Your task to perform on an android device: open app "PlayWell" Image 0: 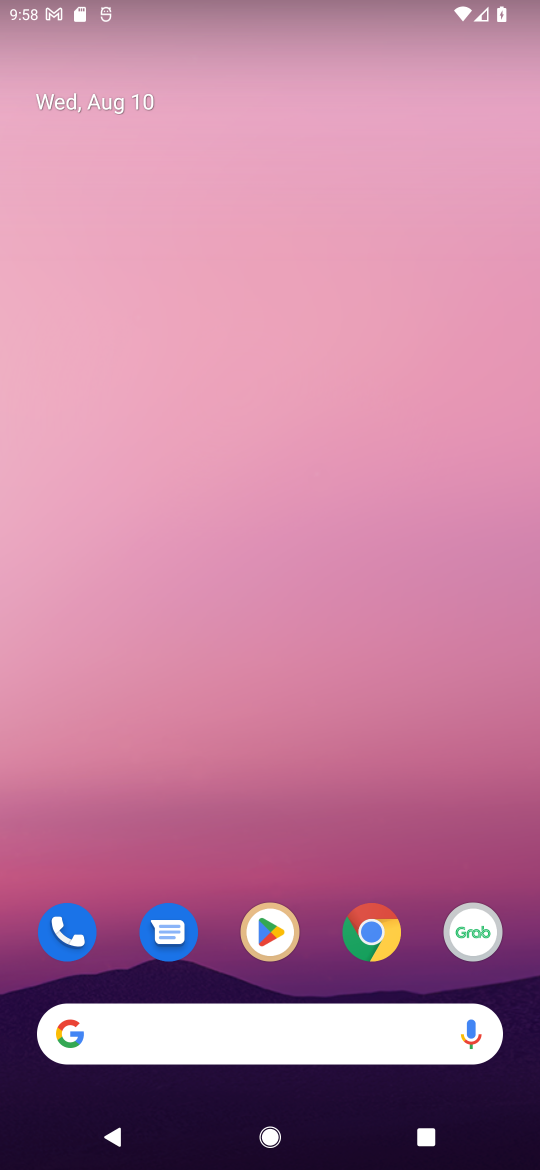
Step 0: click (278, 922)
Your task to perform on an android device: open app "PlayWell" Image 1: 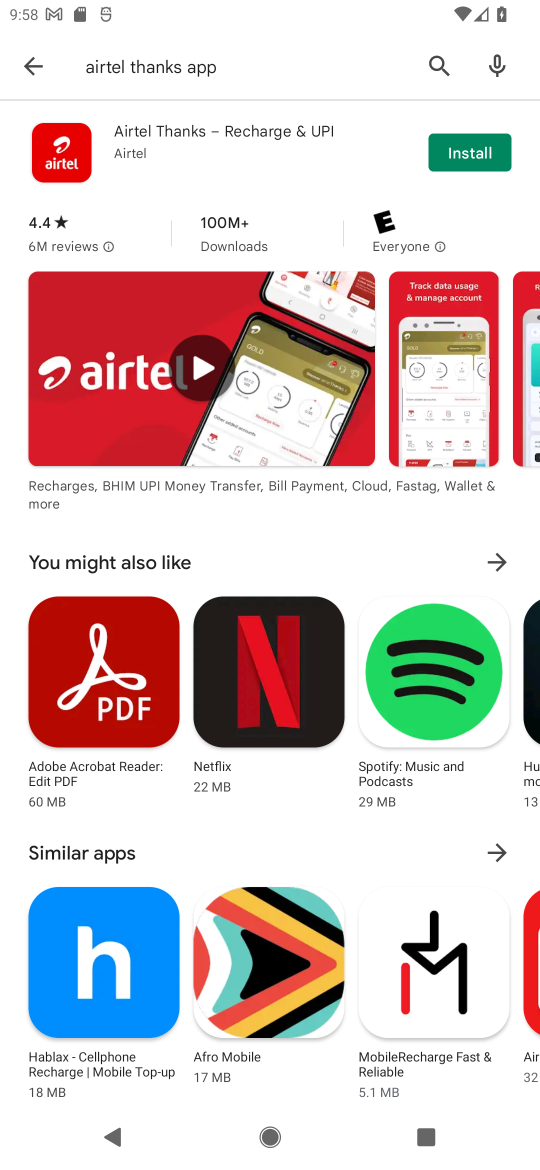
Step 1: click (427, 61)
Your task to perform on an android device: open app "PlayWell" Image 2: 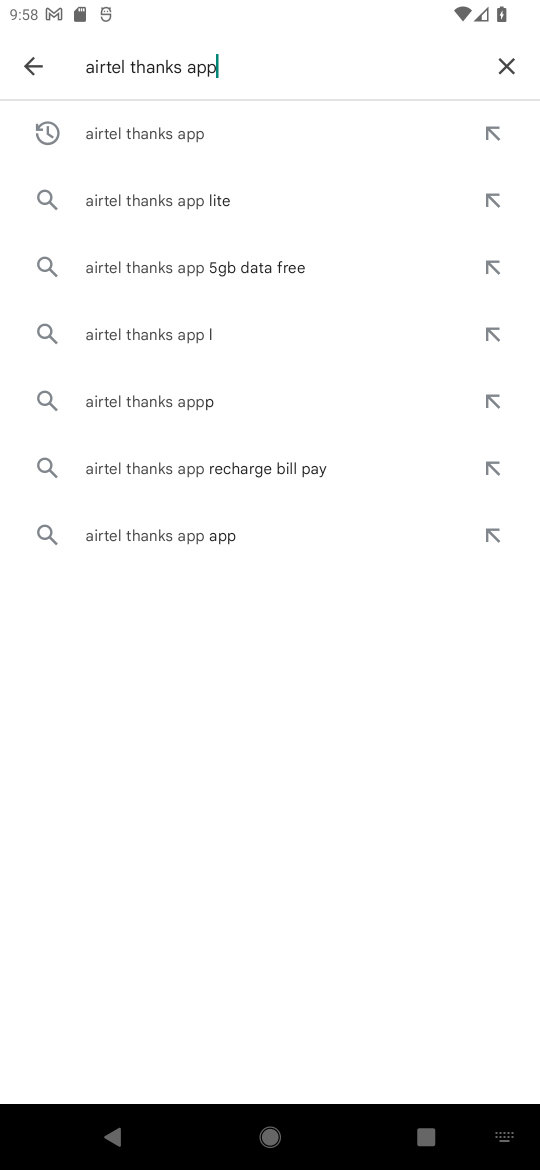
Step 2: click (505, 57)
Your task to perform on an android device: open app "PlayWell" Image 3: 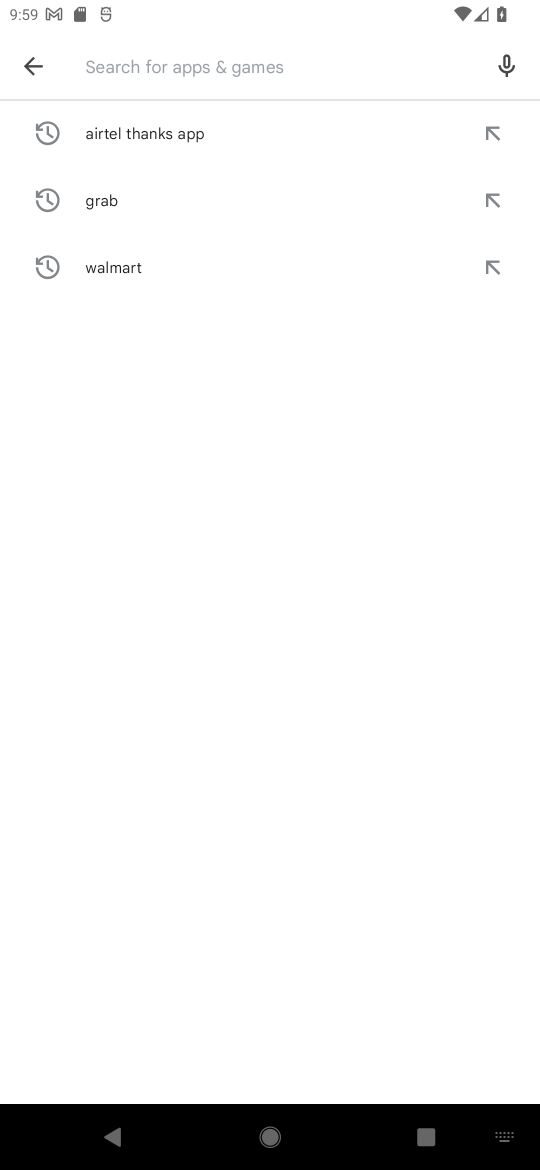
Step 3: type "playwell"
Your task to perform on an android device: open app "PlayWell" Image 4: 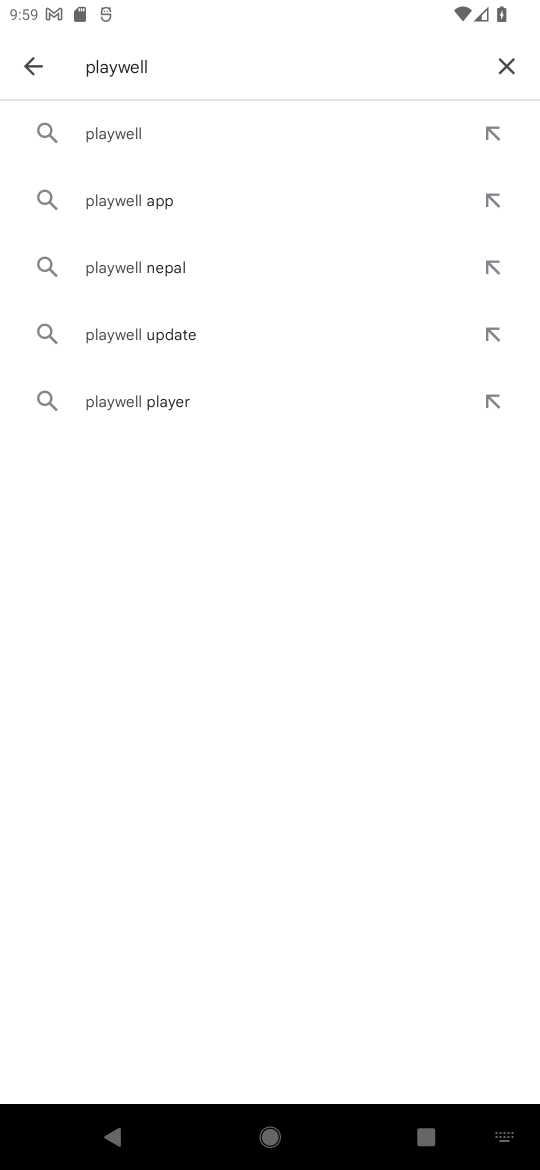
Step 4: click (241, 130)
Your task to perform on an android device: open app "PlayWell" Image 5: 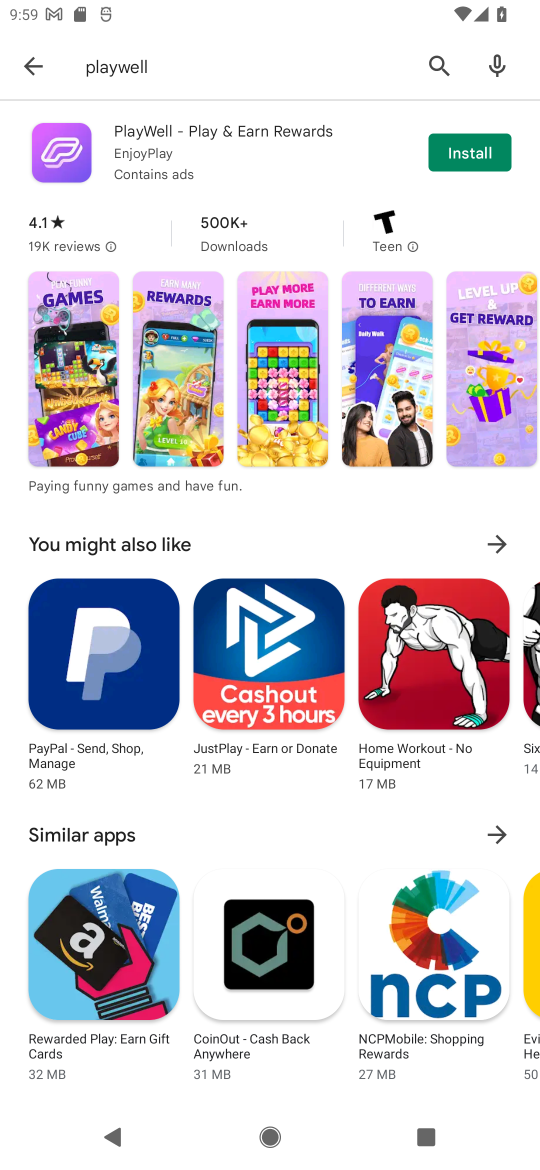
Step 5: task complete